Your task to perform on an android device: Check the weather Image 0: 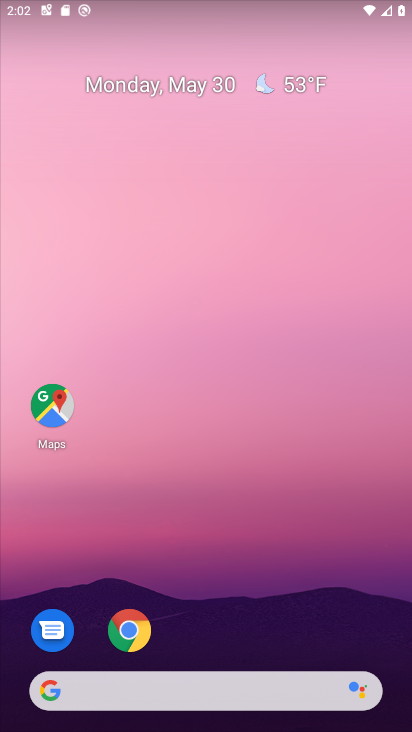
Step 0: press home button
Your task to perform on an android device: Check the weather Image 1: 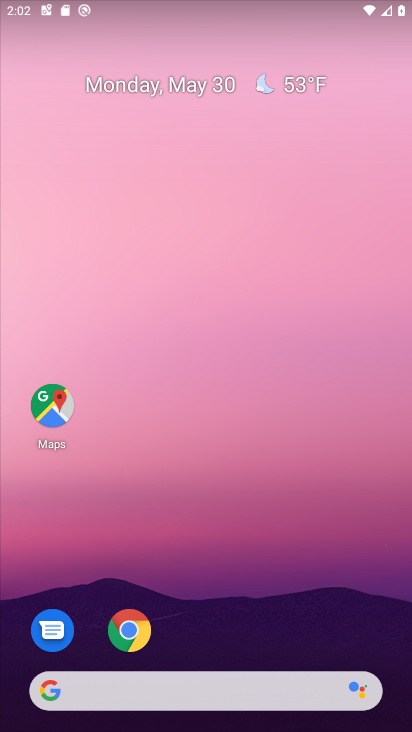
Step 1: click (295, 82)
Your task to perform on an android device: Check the weather Image 2: 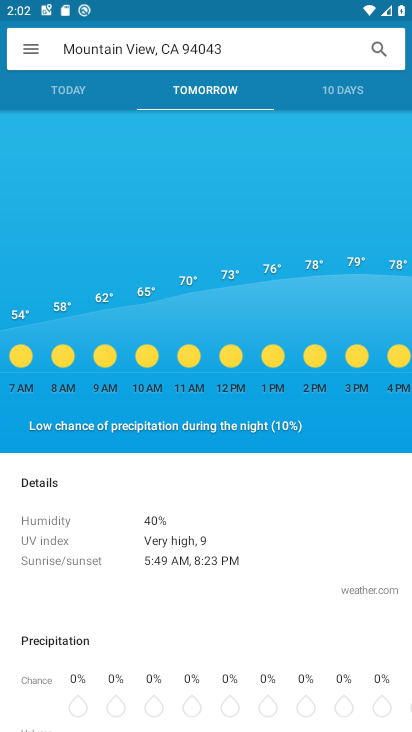
Step 2: click (70, 94)
Your task to perform on an android device: Check the weather Image 3: 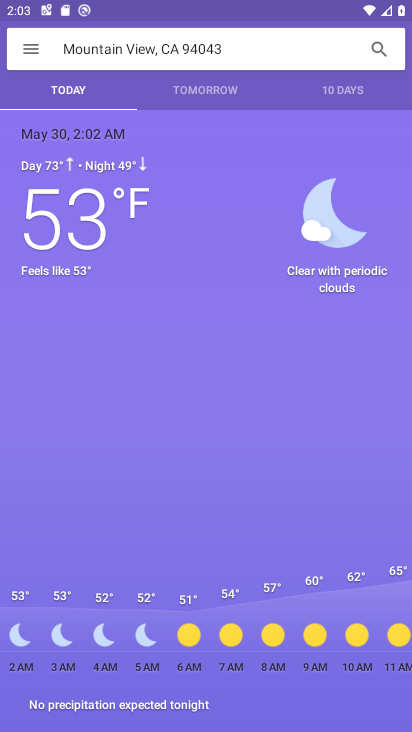
Step 3: task complete